Your task to perform on an android device: open wifi settings Image 0: 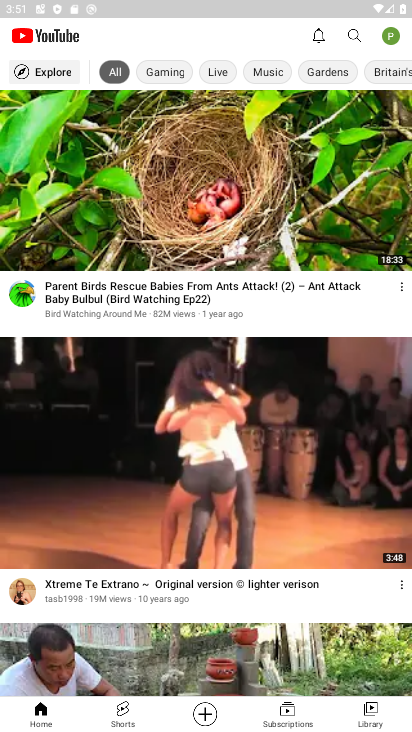
Step 0: press home button
Your task to perform on an android device: open wifi settings Image 1: 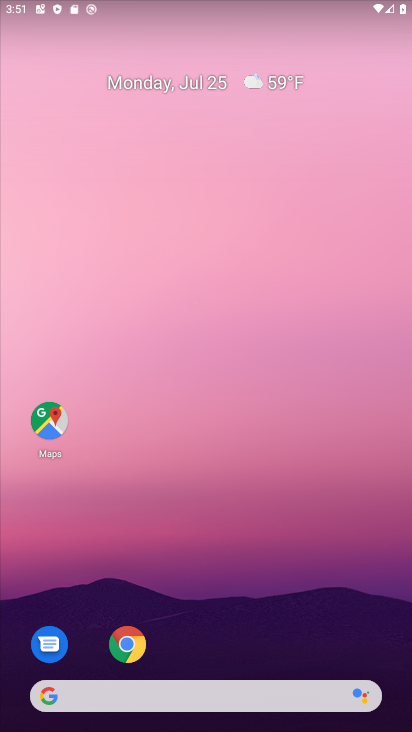
Step 1: drag from (179, 678) to (185, 158)
Your task to perform on an android device: open wifi settings Image 2: 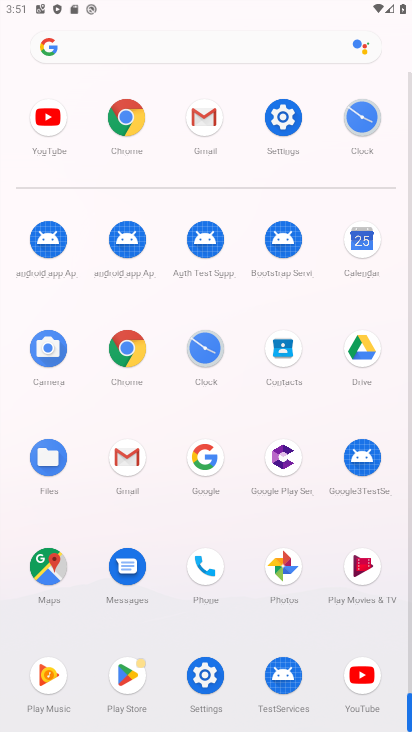
Step 2: click (282, 109)
Your task to perform on an android device: open wifi settings Image 3: 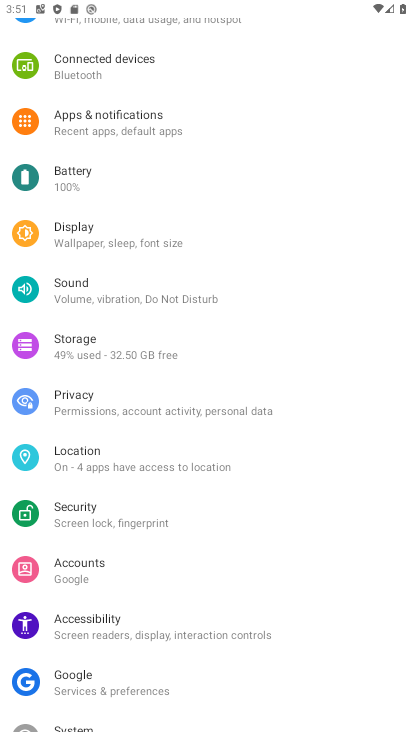
Step 3: drag from (145, 59) to (206, 523)
Your task to perform on an android device: open wifi settings Image 4: 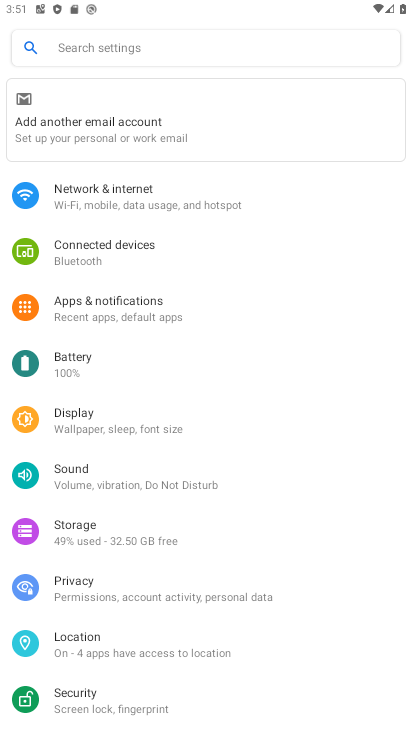
Step 4: click (118, 196)
Your task to perform on an android device: open wifi settings Image 5: 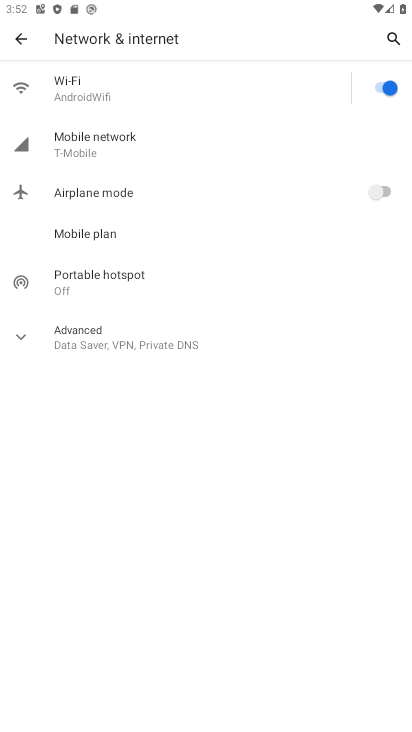
Step 5: click (97, 331)
Your task to perform on an android device: open wifi settings Image 6: 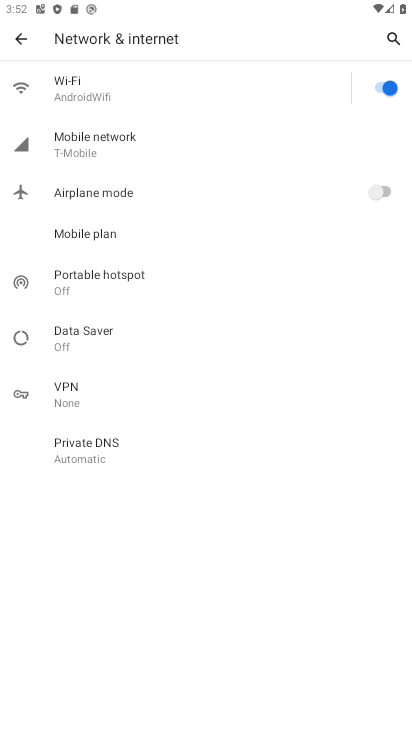
Step 6: click (66, 87)
Your task to perform on an android device: open wifi settings Image 7: 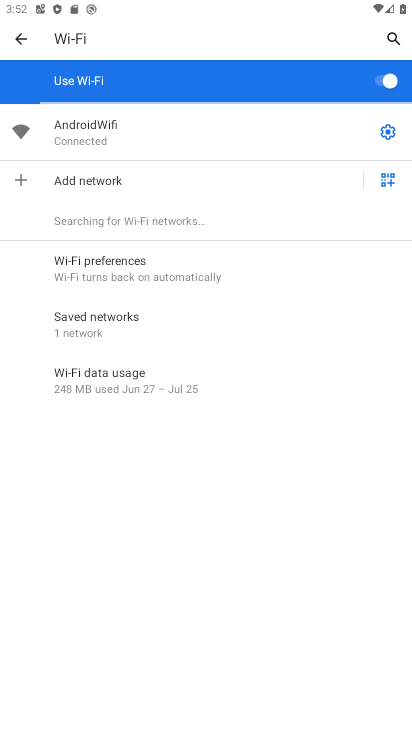
Step 7: click (392, 131)
Your task to perform on an android device: open wifi settings Image 8: 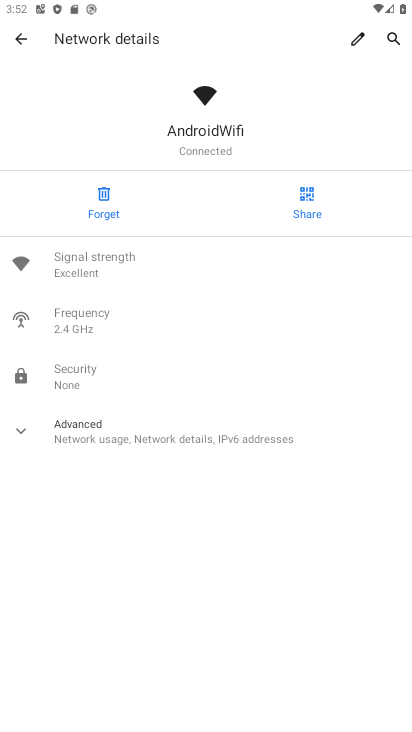
Step 8: click (136, 430)
Your task to perform on an android device: open wifi settings Image 9: 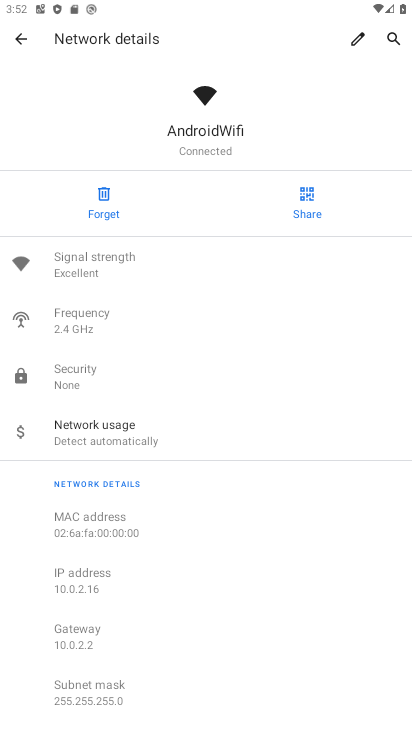
Step 9: task complete